Your task to perform on an android device: open a bookmark in the chrome app Image 0: 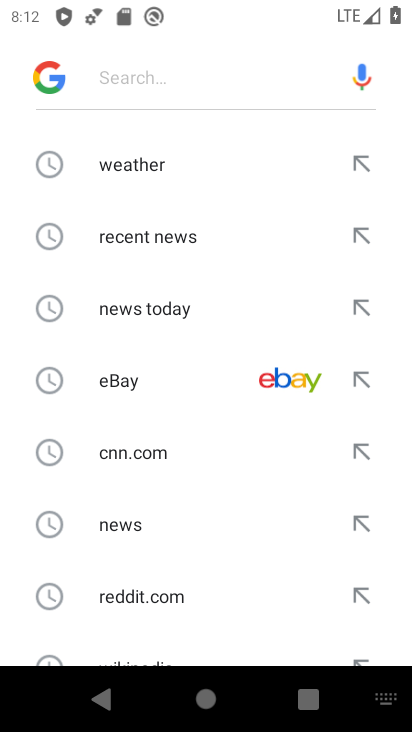
Step 0: press home button
Your task to perform on an android device: open a bookmark in the chrome app Image 1: 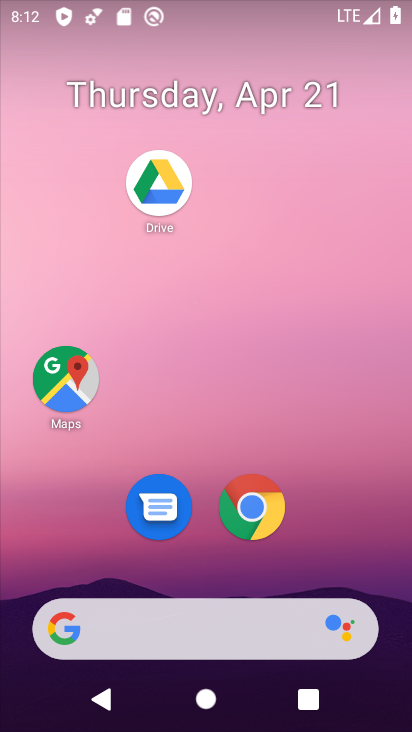
Step 1: drag from (371, 555) to (371, 102)
Your task to perform on an android device: open a bookmark in the chrome app Image 2: 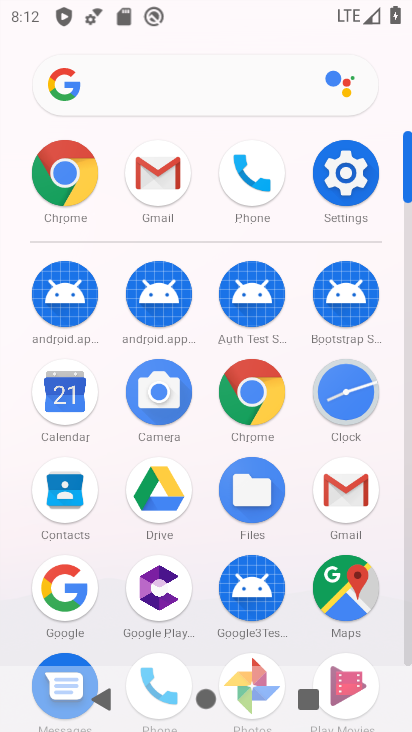
Step 2: click (261, 408)
Your task to perform on an android device: open a bookmark in the chrome app Image 3: 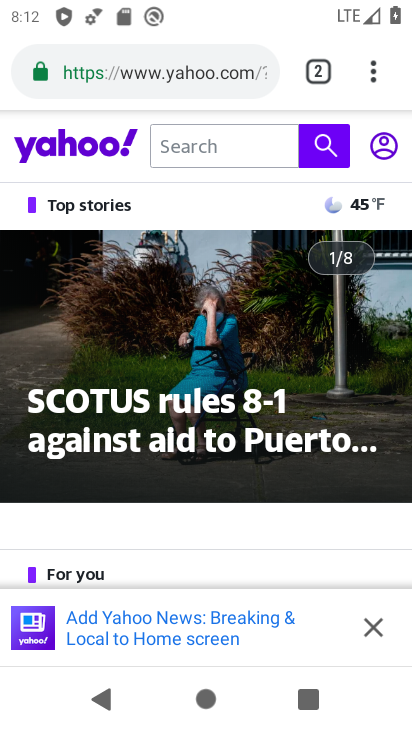
Step 3: click (374, 73)
Your task to perform on an android device: open a bookmark in the chrome app Image 4: 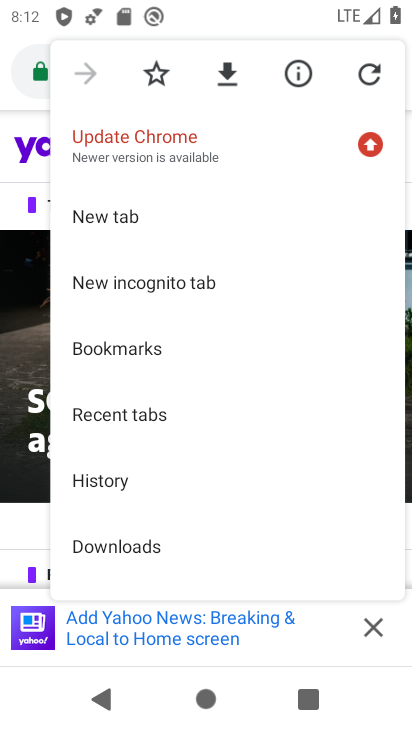
Step 4: drag from (323, 470) to (333, 340)
Your task to perform on an android device: open a bookmark in the chrome app Image 5: 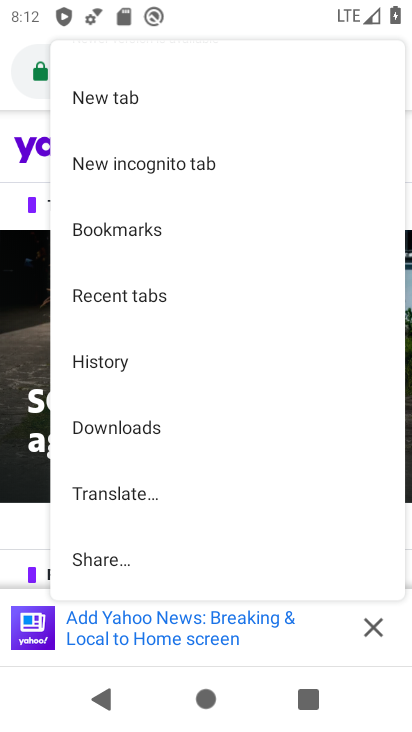
Step 5: drag from (325, 478) to (336, 338)
Your task to perform on an android device: open a bookmark in the chrome app Image 6: 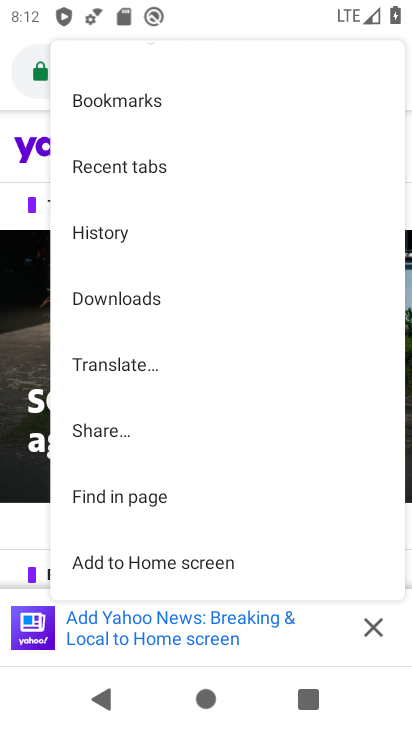
Step 6: drag from (338, 483) to (345, 358)
Your task to perform on an android device: open a bookmark in the chrome app Image 7: 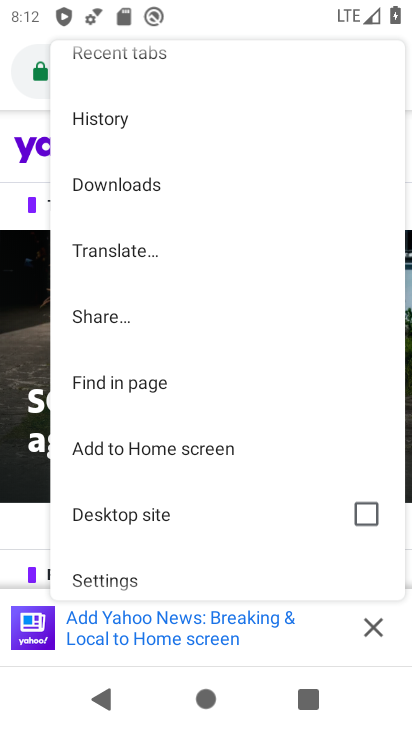
Step 7: drag from (296, 506) to (311, 346)
Your task to perform on an android device: open a bookmark in the chrome app Image 8: 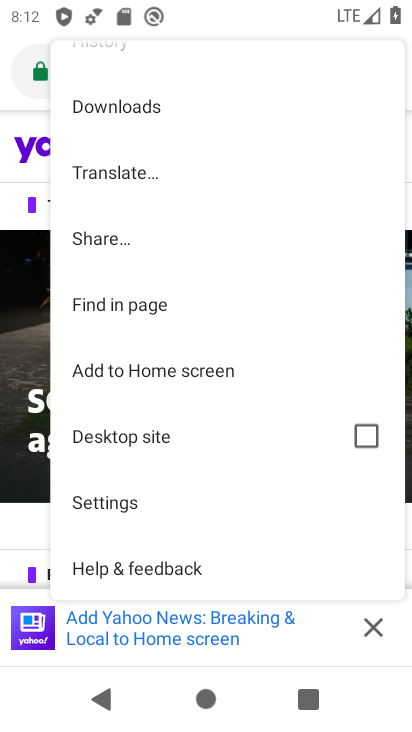
Step 8: drag from (311, 270) to (304, 410)
Your task to perform on an android device: open a bookmark in the chrome app Image 9: 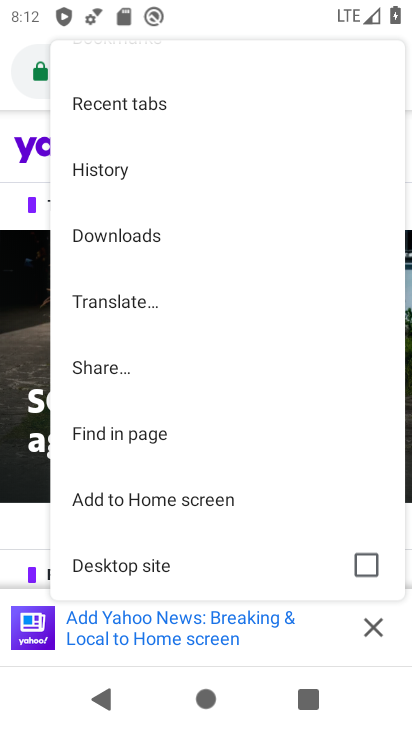
Step 9: drag from (302, 289) to (297, 422)
Your task to perform on an android device: open a bookmark in the chrome app Image 10: 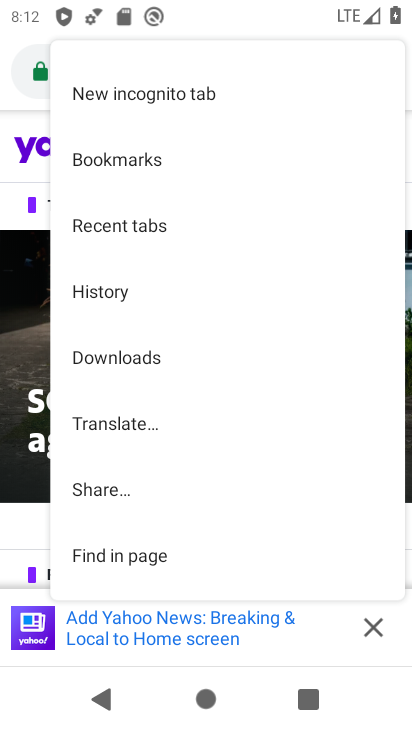
Step 10: drag from (296, 285) to (293, 418)
Your task to perform on an android device: open a bookmark in the chrome app Image 11: 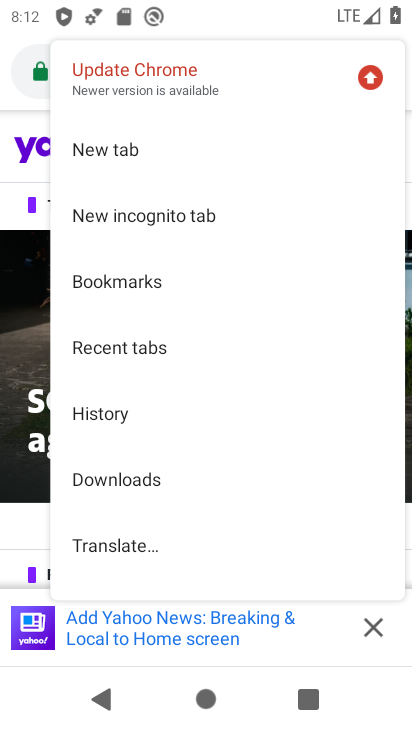
Step 11: drag from (304, 259) to (303, 365)
Your task to perform on an android device: open a bookmark in the chrome app Image 12: 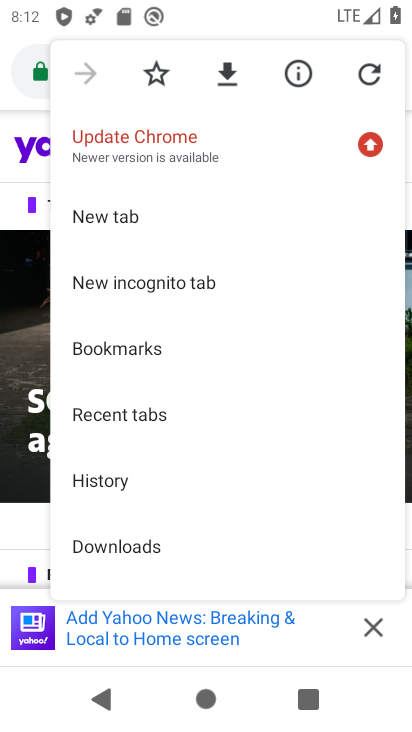
Step 12: click (173, 356)
Your task to perform on an android device: open a bookmark in the chrome app Image 13: 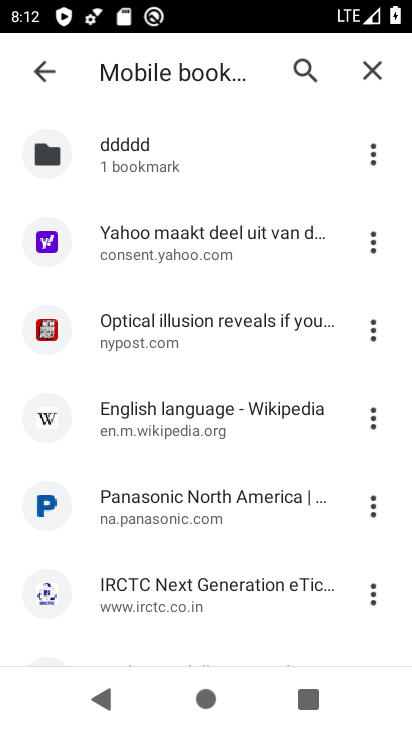
Step 13: click (224, 248)
Your task to perform on an android device: open a bookmark in the chrome app Image 14: 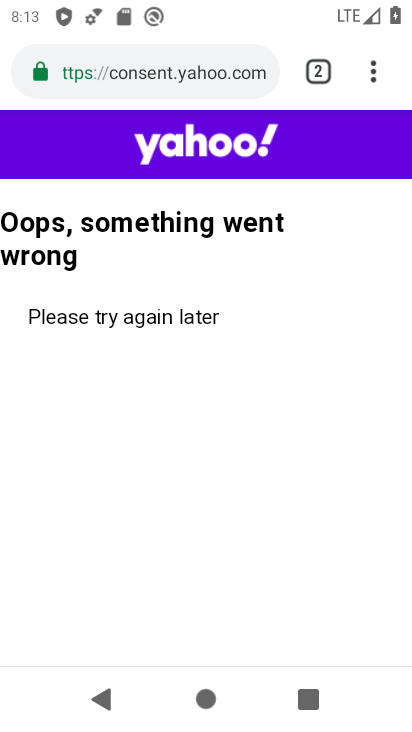
Step 14: task complete